Your task to perform on an android device: install app "Cash App" Image 0: 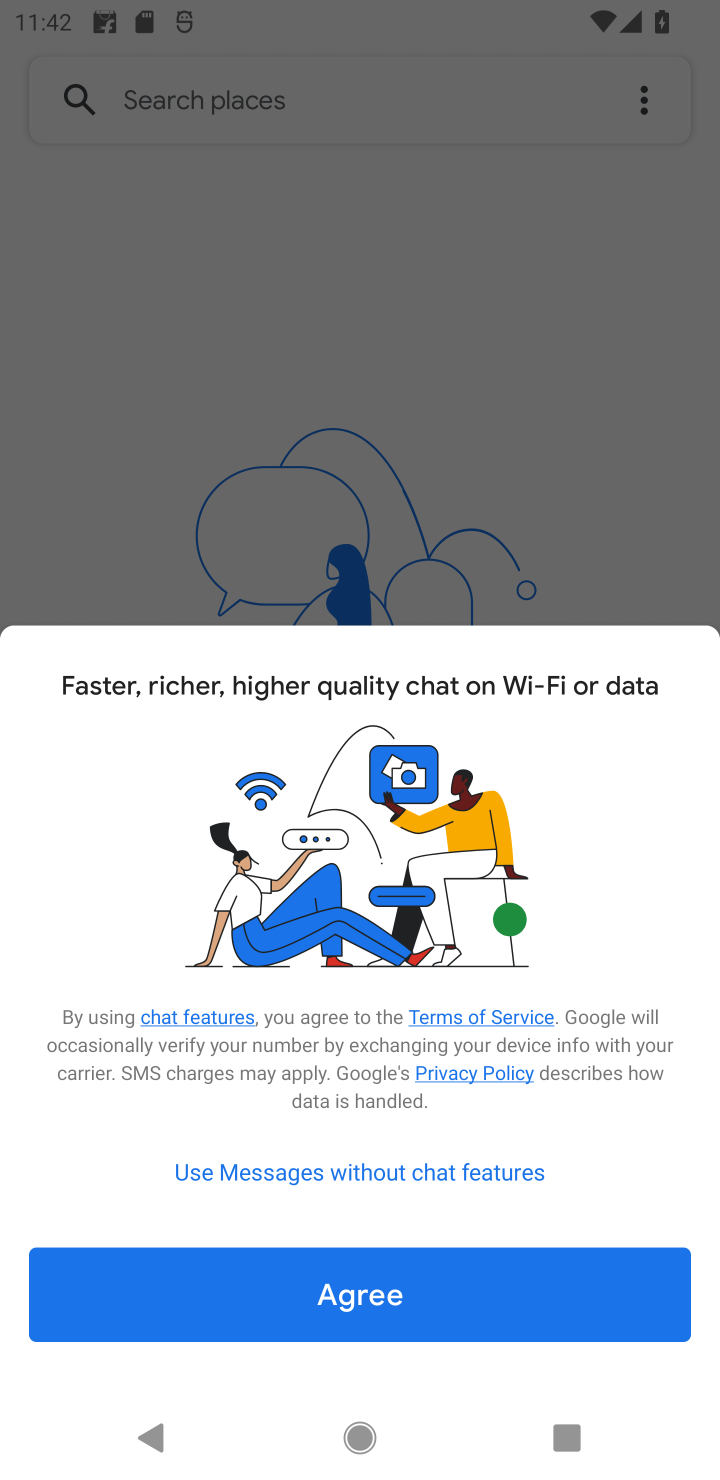
Step 0: press home button
Your task to perform on an android device: install app "Cash App" Image 1: 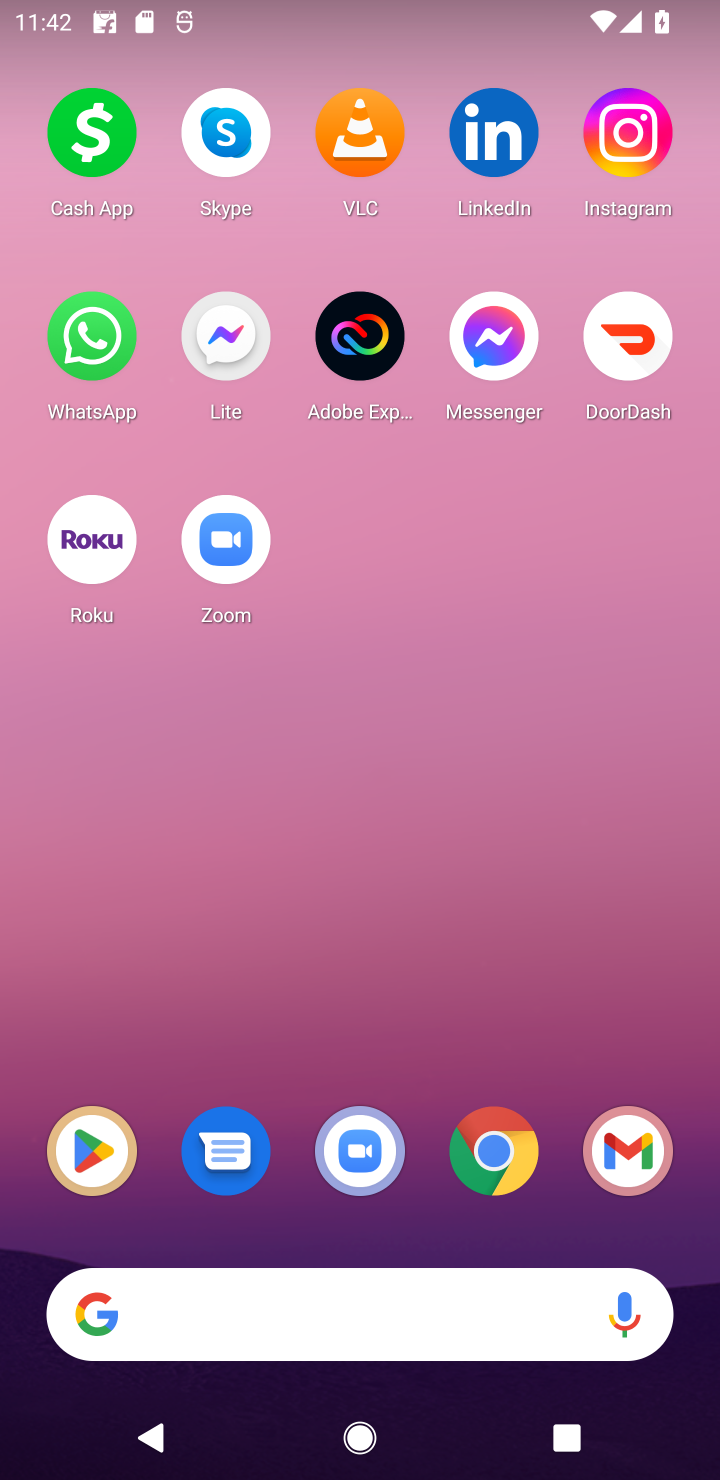
Step 1: click (76, 1146)
Your task to perform on an android device: install app "Cash App" Image 2: 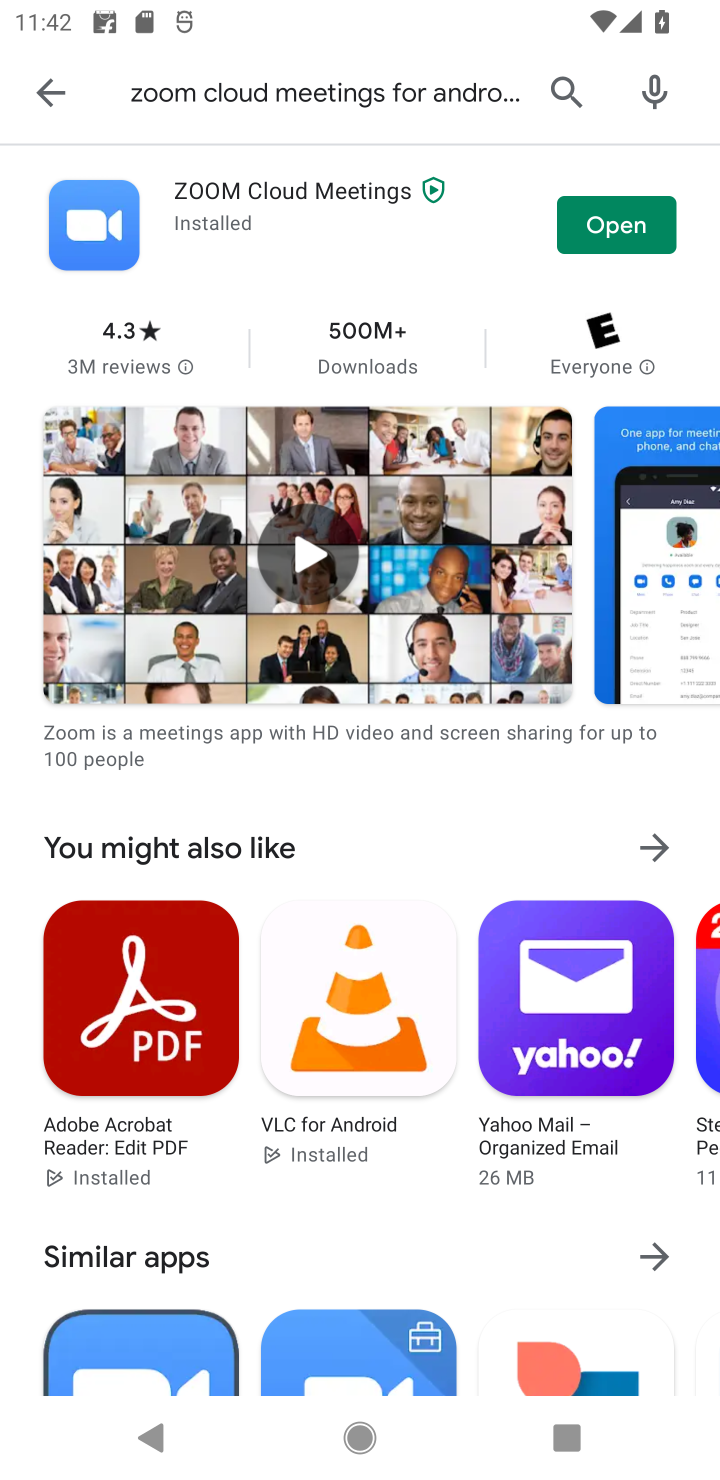
Step 2: click (566, 104)
Your task to perform on an android device: install app "Cash App" Image 3: 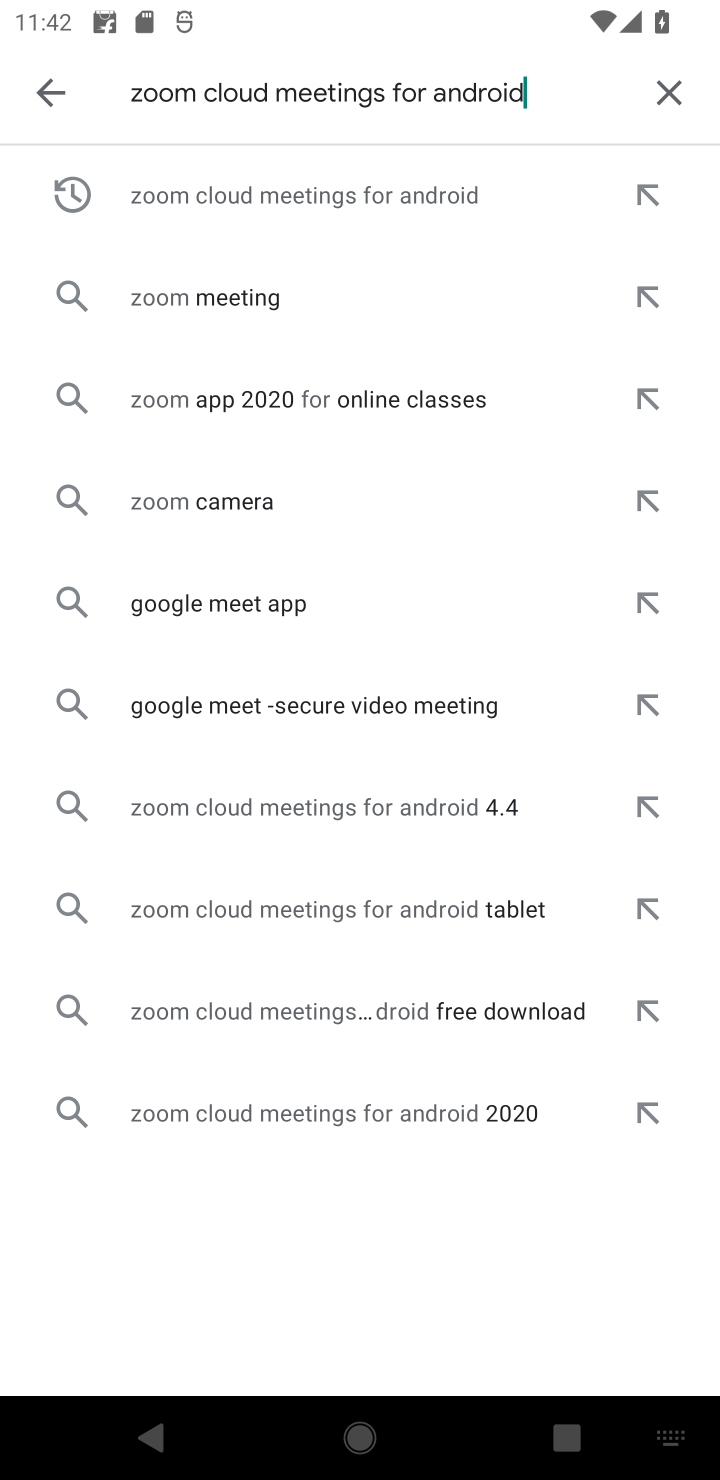
Step 3: click (674, 102)
Your task to perform on an android device: install app "Cash App" Image 4: 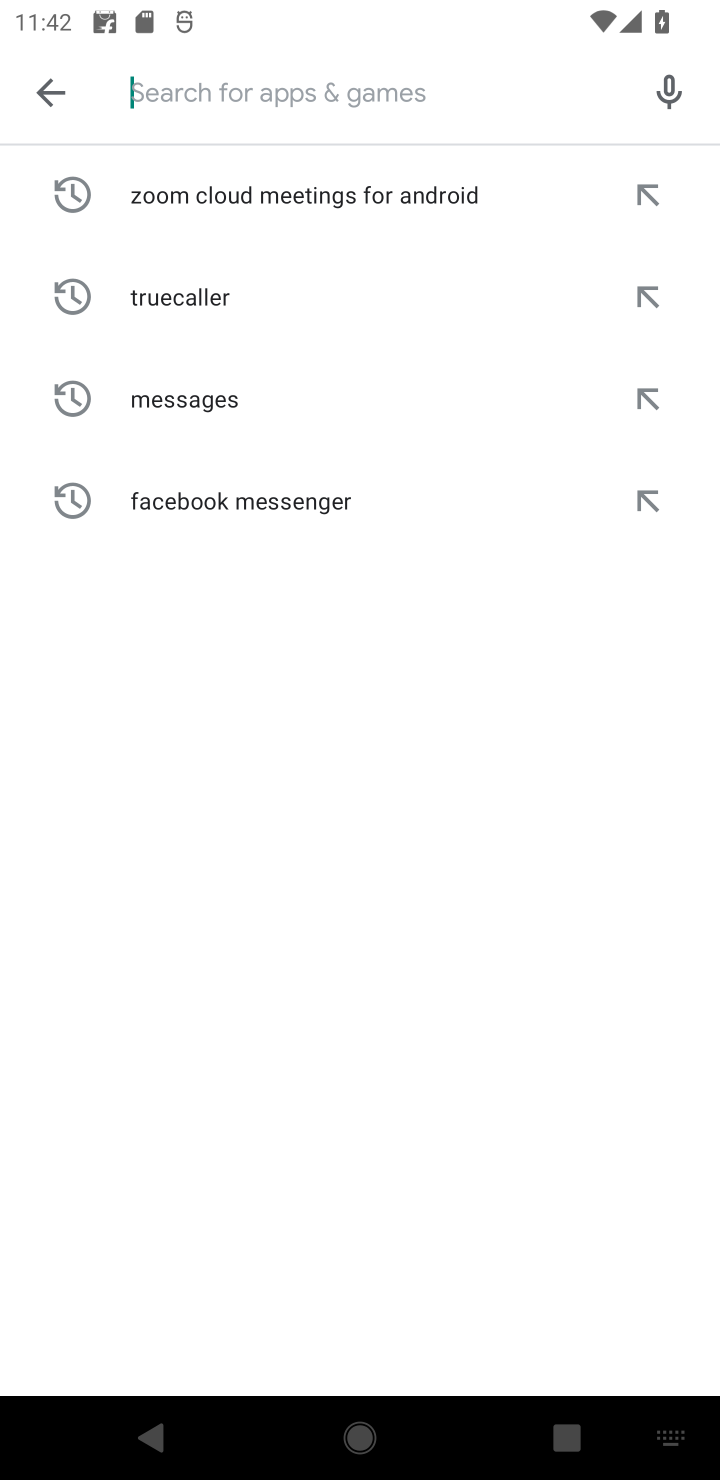
Step 4: type "Cash App"
Your task to perform on an android device: install app "Cash App" Image 5: 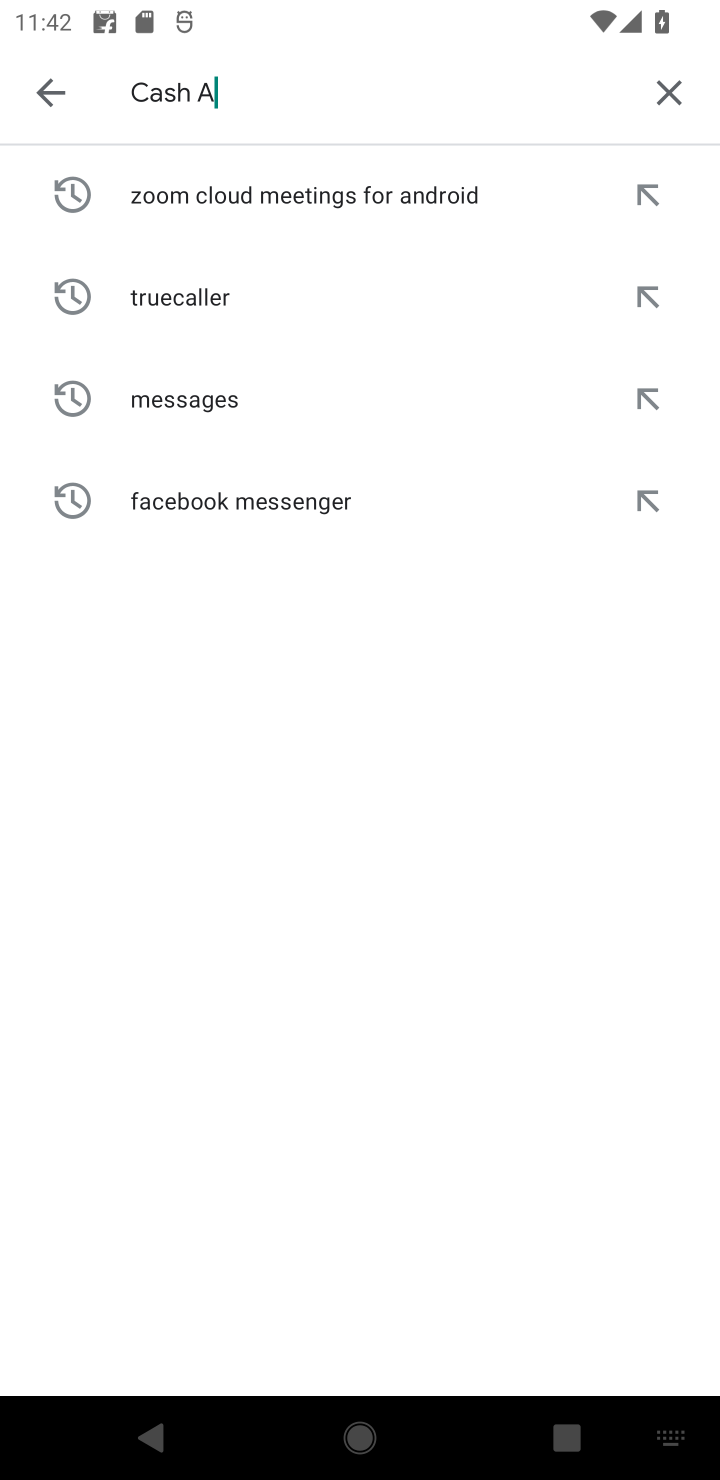
Step 5: type ""
Your task to perform on an android device: install app "Cash App" Image 6: 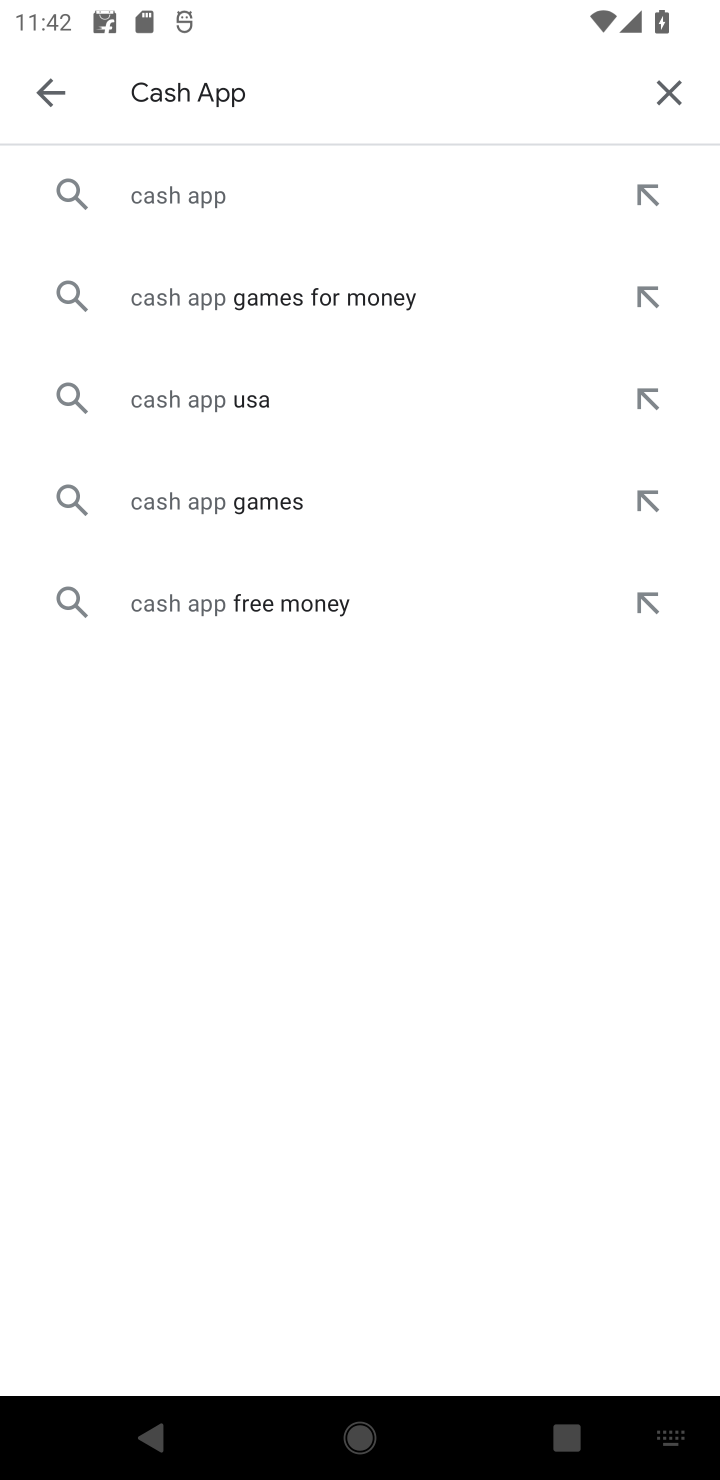
Step 6: click (237, 194)
Your task to perform on an android device: install app "Cash App" Image 7: 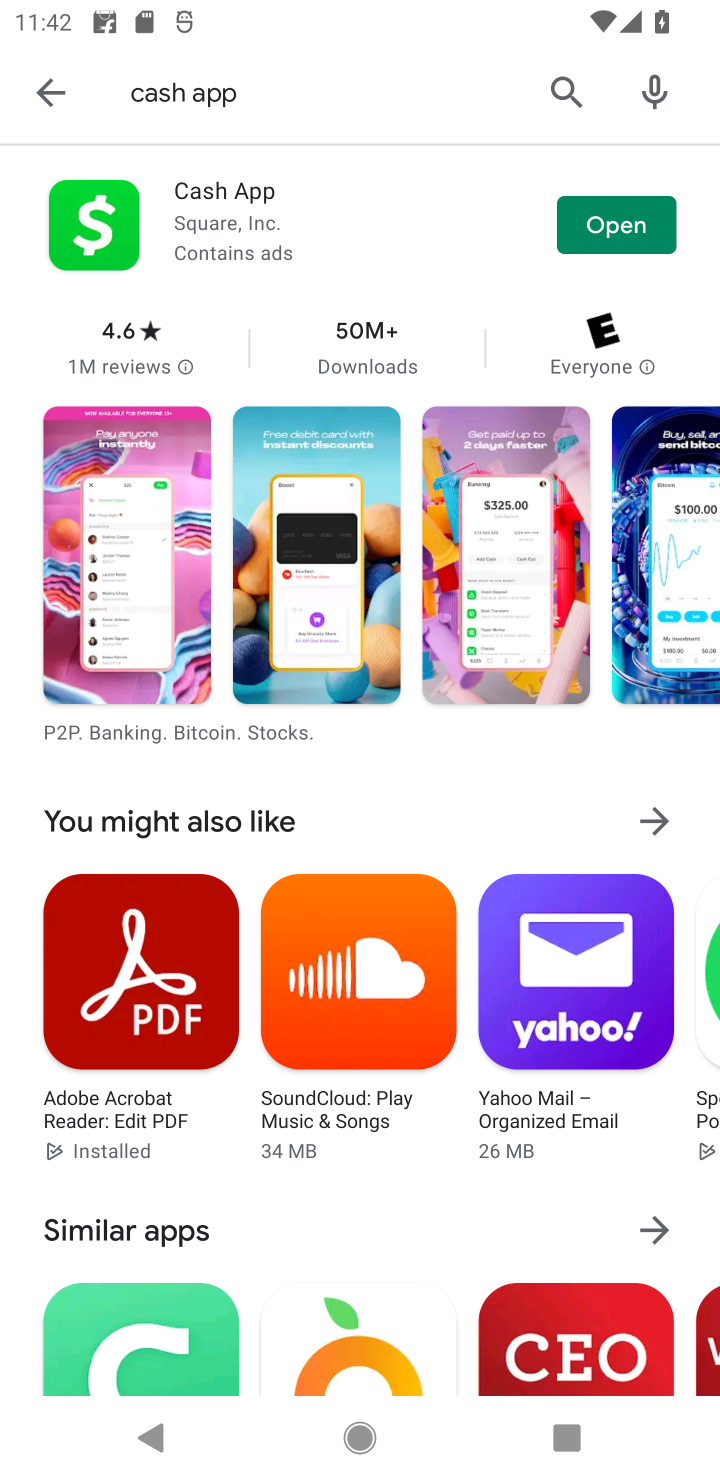
Step 7: task complete